Your task to perform on an android device: Set the phone to "Do not disturb". Image 0: 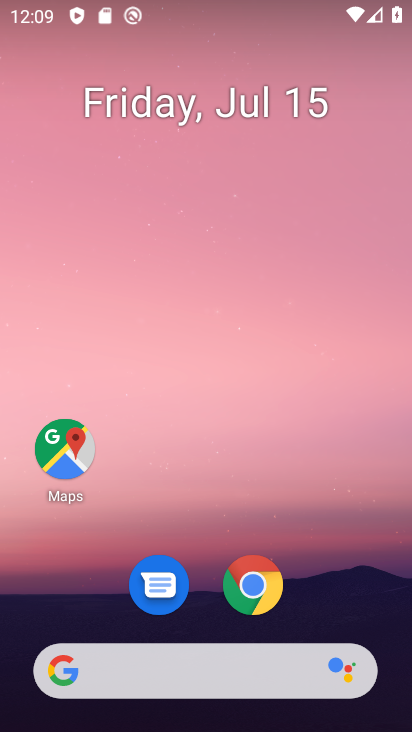
Step 0: drag from (330, 557) to (363, 34)
Your task to perform on an android device: Set the phone to "Do not disturb". Image 1: 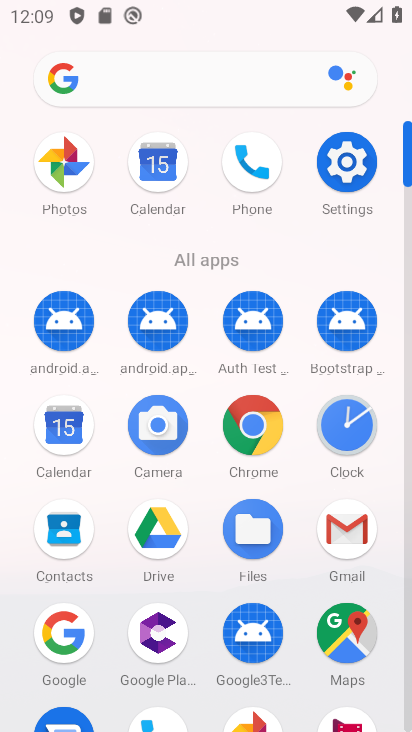
Step 1: click (350, 168)
Your task to perform on an android device: Set the phone to "Do not disturb". Image 2: 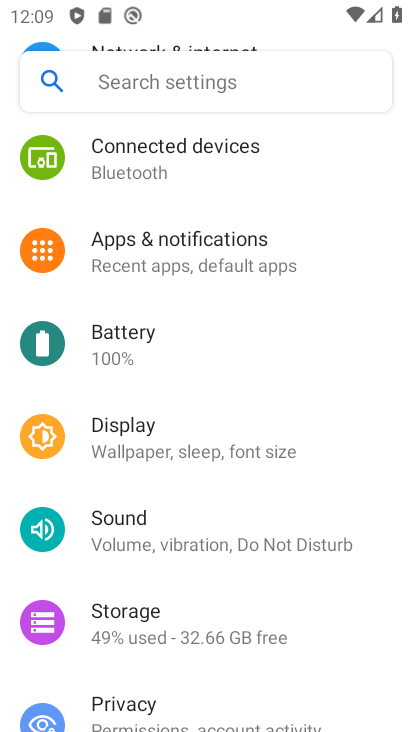
Step 2: click (172, 540)
Your task to perform on an android device: Set the phone to "Do not disturb". Image 3: 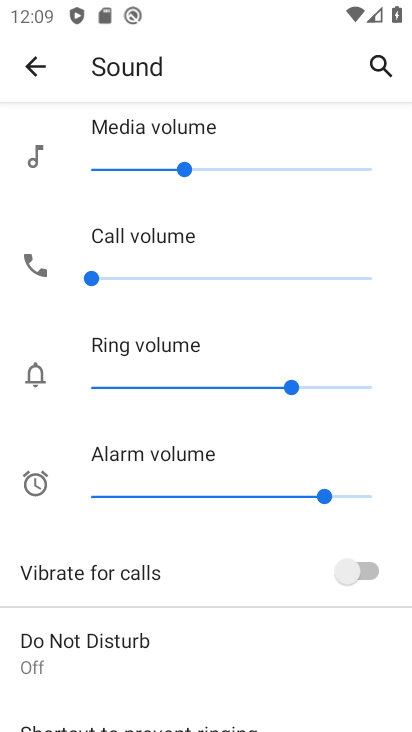
Step 3: click (95, 651)
Your task to perform on an android device: Set the phone to "Do not disturb". Image 4: 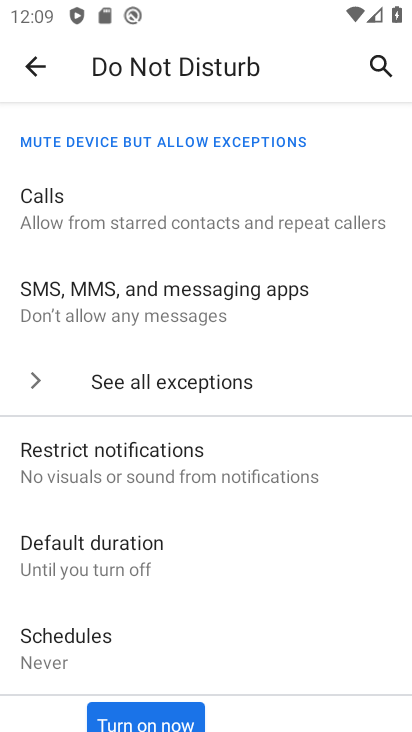
Step 4: click (158, 723)
Your task to perform on an android device: Set the phone to "Do not disturb". Image 5: 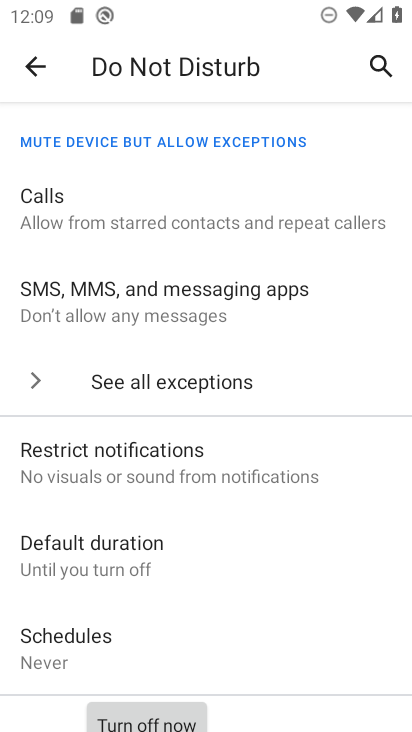
Step 5: task complete